Your task to perform on an android device: toggle pop-ups in chrome Image 0: 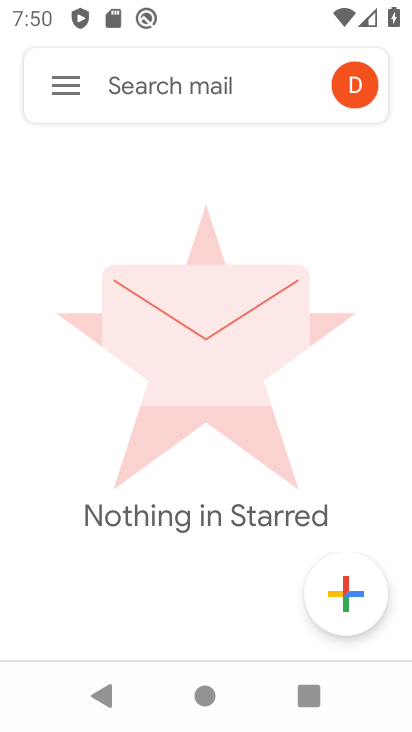
Step 0: press home button
Your task to perform on an android device: toggle pop-ups in chrome Image 1: 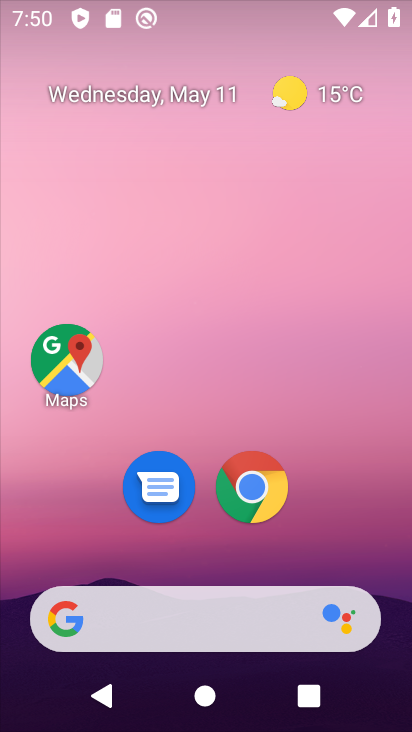
Step 1: drag from (245, 632) to (196, 343)
Your task to perform on an android device: toggle pop-ups in chrome Image 2: 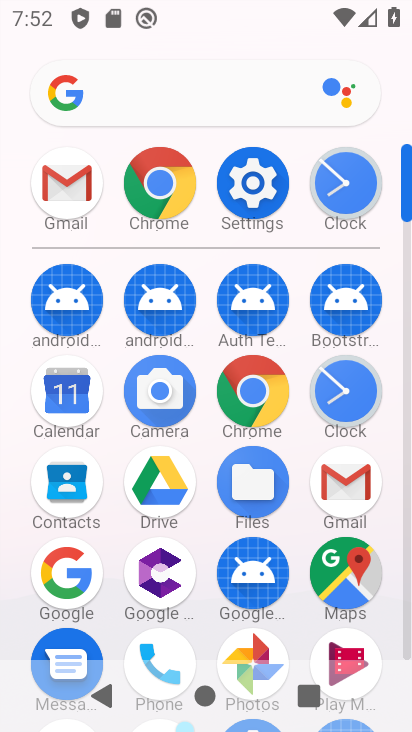
Step 2: click (140, 180)
Your task to perform on an android device: toggle pop-ups in chrome Image 3: 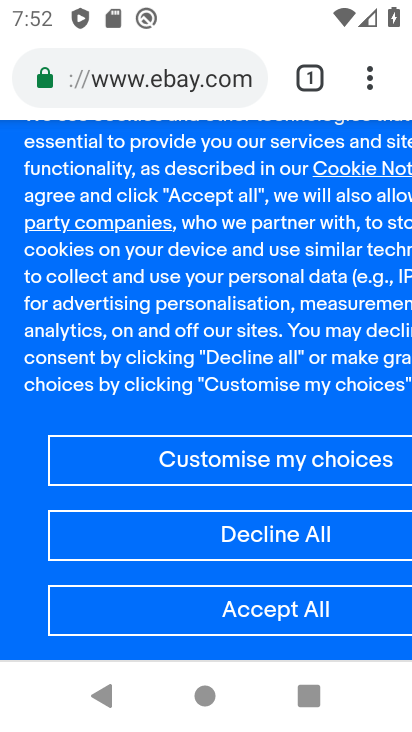
Step 3: click (360, 66)
Your task to perform on an android device: toggle pop-ups in chrome Image 4: 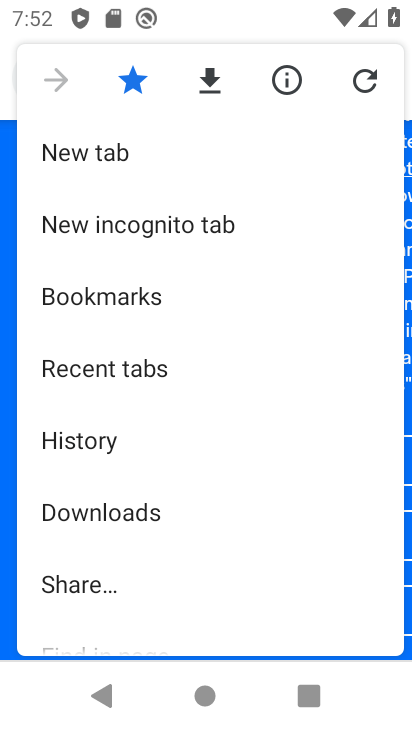
Step 4: drag from (216, 486) to (209, 190)
Your task to perform on an android device: toggle pop-ups in chrome Image 5: 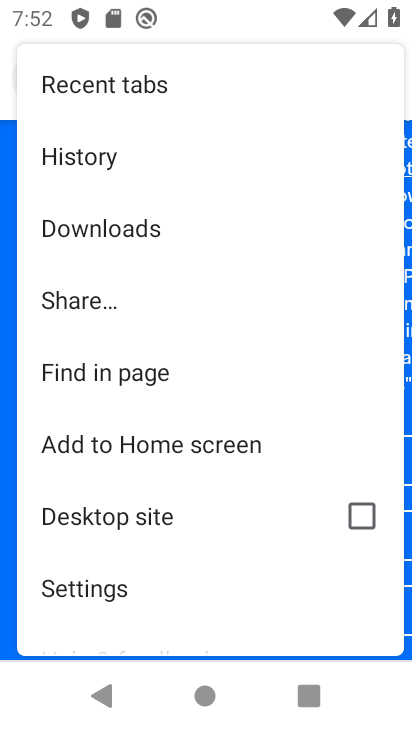
Step 5: click (127, 593)
Your task to perform on an android device: toggle pop-ups in chrome Image 6: 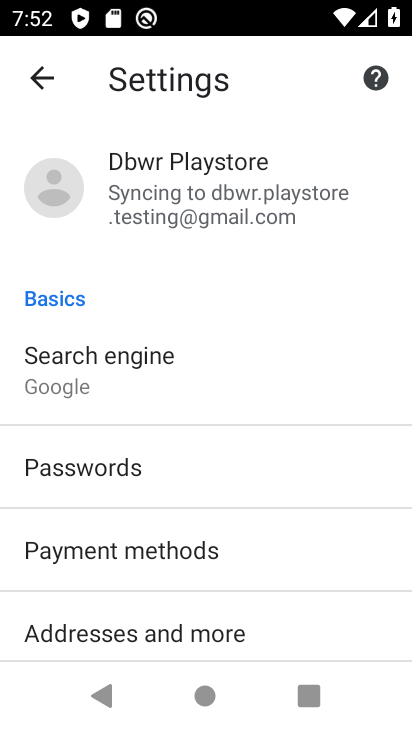
Step 6: drag from (215, 586) to (214, 299)
Your task to perform on an android device: toggle pop-ups in chrome Image 7: 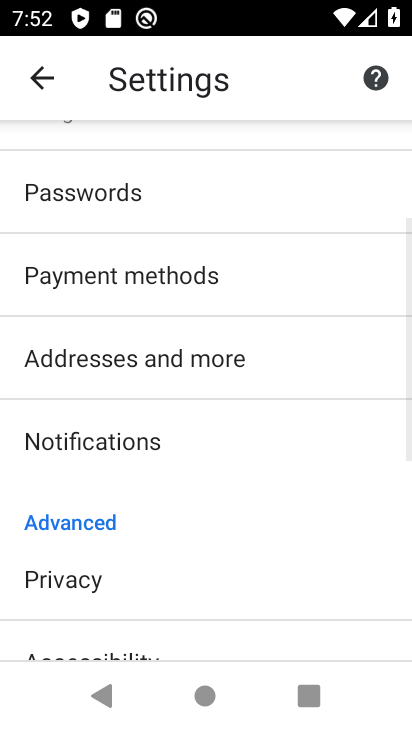
Step 7: drag from (197, 589) to (160, 350)
Your task to perform on an android device: toggle pop-ups in chrome Image 8: 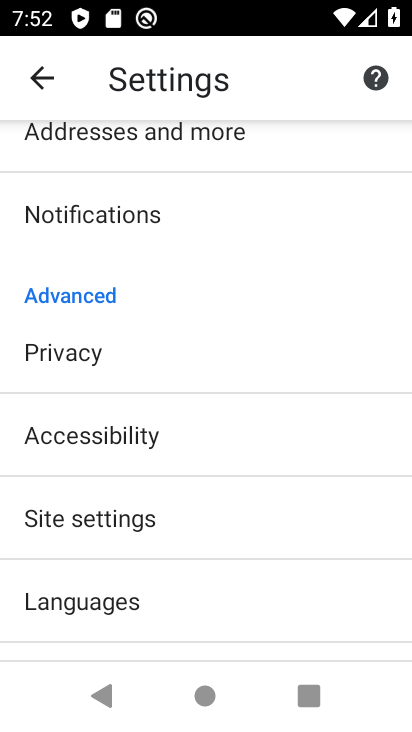
Step 8: click (121, 531)
Your task to perform on an android device: toggle pop-ups in chrome Image 9: 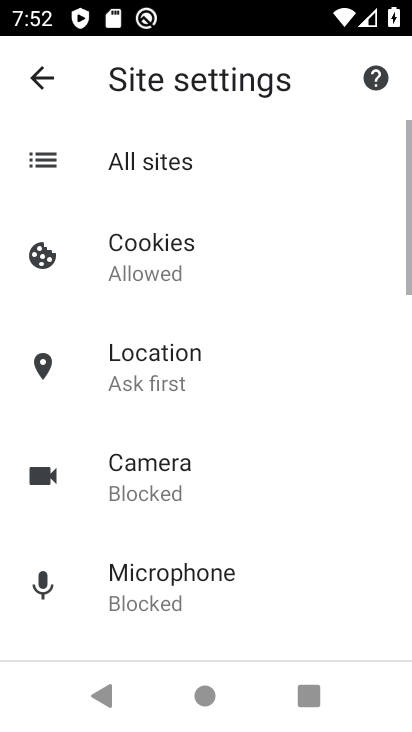
Step 9: drag from (218, 594) to (201, 368)
Your task to perform on an android device: toggle pop-ups in chrome Image 10: 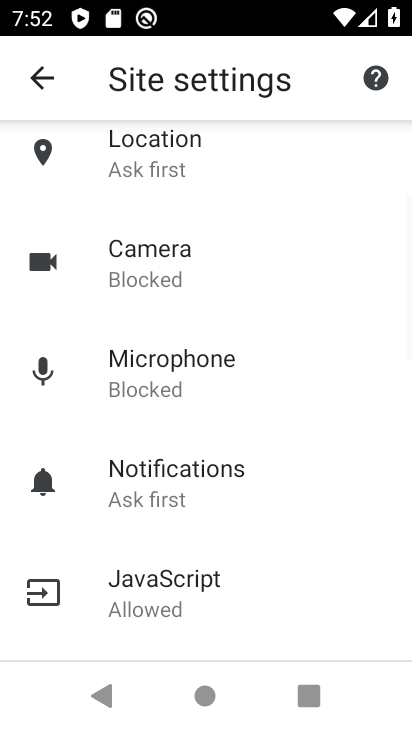
Step 10: drag from (198, 608) to (169, 331)
Your task to perform on an android device: toggle pop-ups in chrome Image 11: 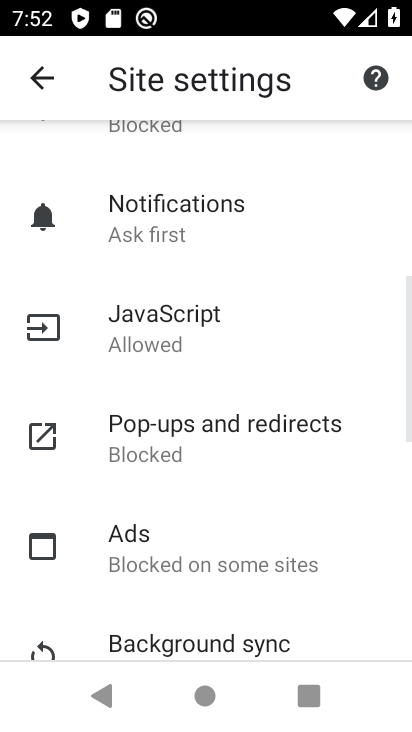
Step 11: click (194, 439)
Your task to perform on an android device: toggle pop-ups in chrome Image 12: 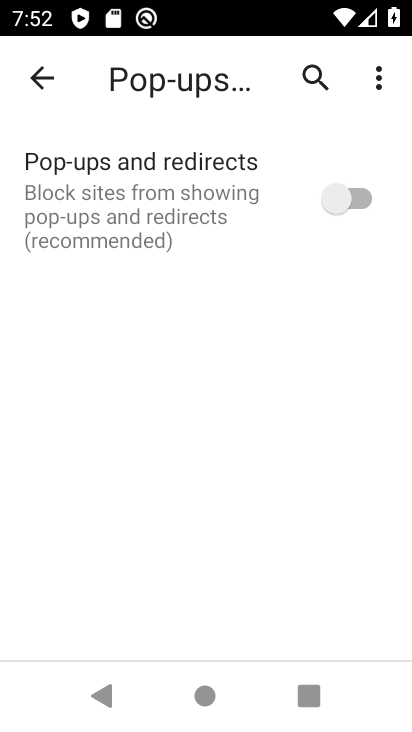
Step 12: task complete